Your task to perform on an android device: turn off data saver in the chrome app Image 0: 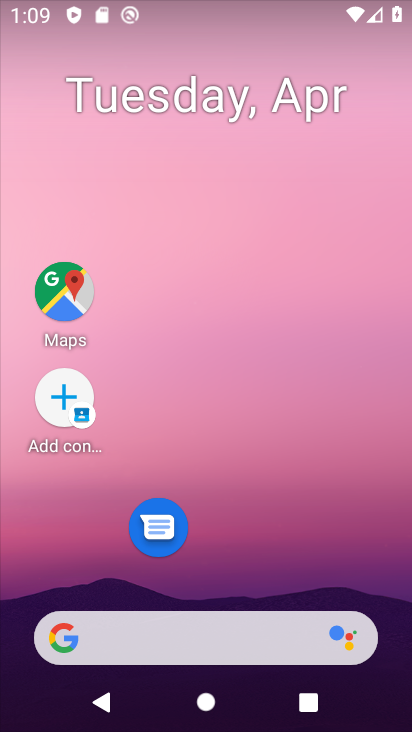
Step 0: drag from (224, 579) to (242, 56)
Your task to perform on an android device: turn off data saver in the chrome app Image 1: 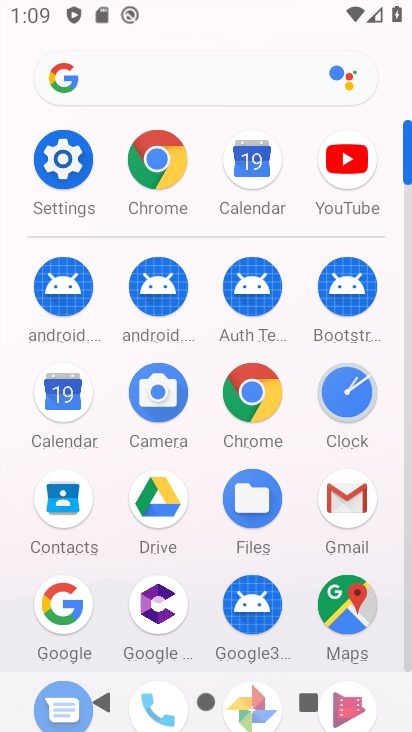
Step 1: click (157, 156)
Your task to perform on an android device: turn off data saver in the chrome app Image 2: 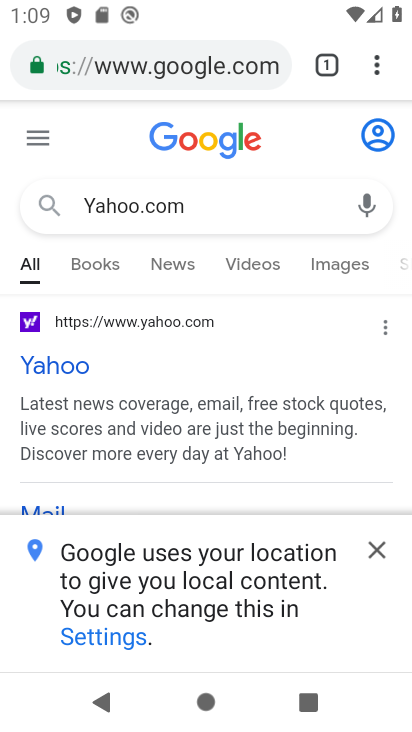
Step 2: click (379, 62)
Your task to perform on an android device: turn off data saver in the chrome app Image 3: 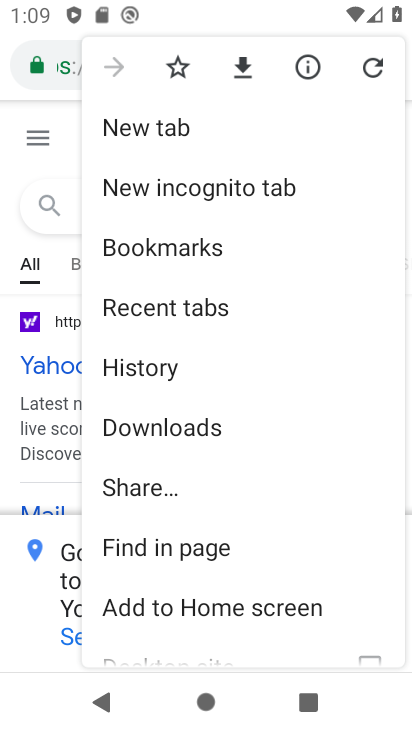
Step 3: drag from (263, 308) to (313, 172)
Your task to perform on an android device: turn off data saver in the chrome app Image 4: 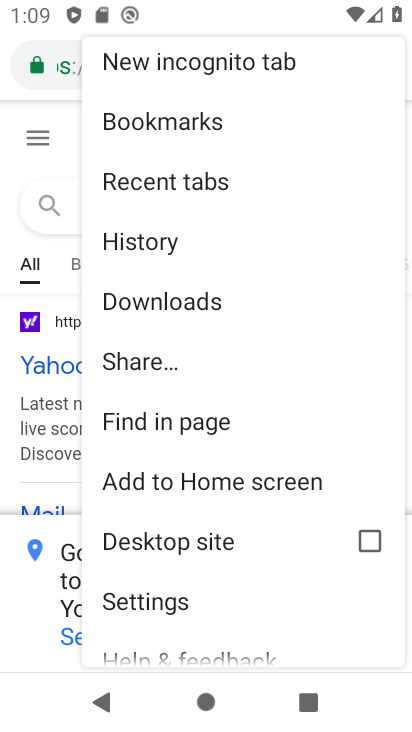
Step 4: click (146, 610)
Your task to perform on an android device: turn off data saver in the chrome app Image 5: 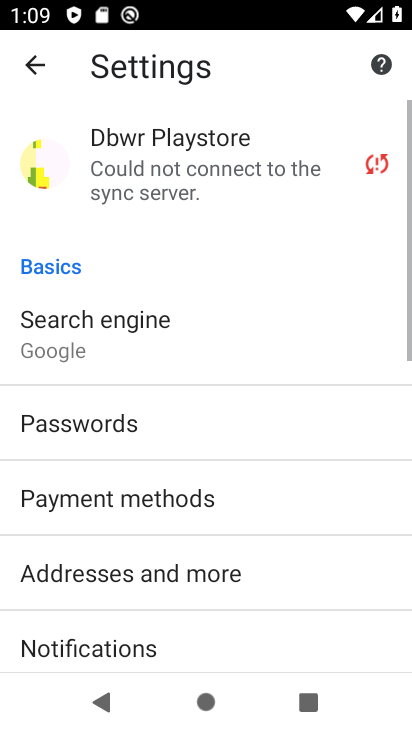
Step 5: drag from (227, 431) to (238, 294)
Your task to perform on an android device: turn off data saver in the chrome app Image 6: 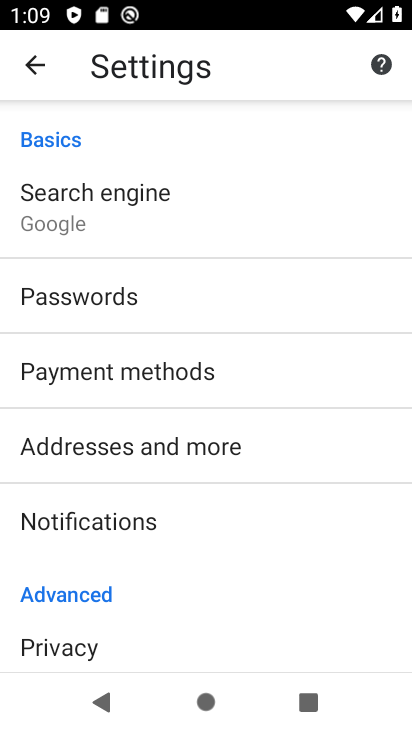
Step 6: drag from (186, 501) to (221, 358)
Your task to perform on an android device: turn off data saver in the chrome app Image 7: 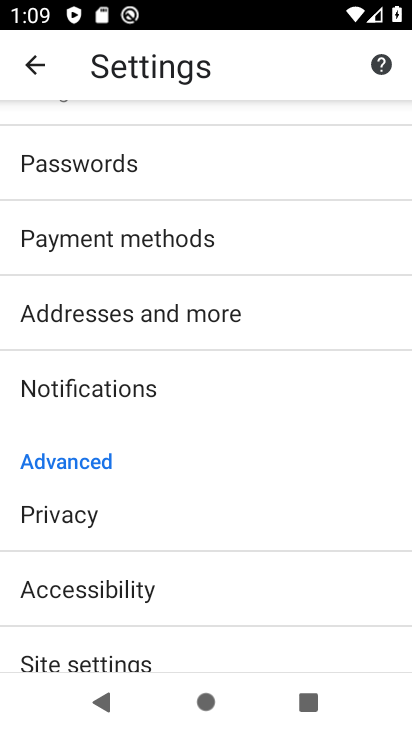
Step 7: drag from (167, 496) to (177, 367)
Your task to perform on an android device: turn off data saver in the chrome app Image 8: 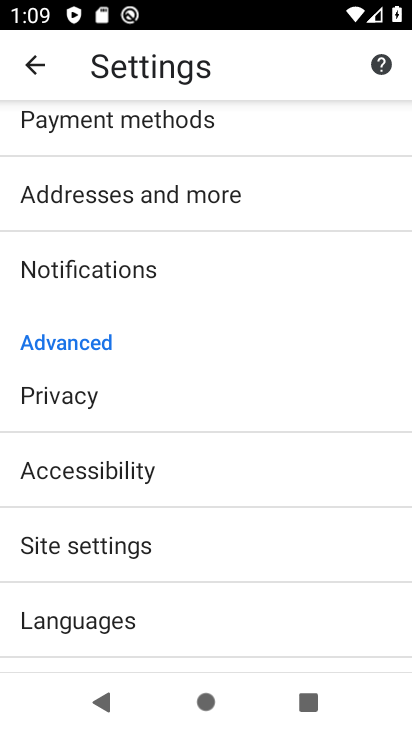
Step 8: drag from (167, 493) to (183, 397)
Your task to perform on an android device: turn off data saver in the chrome app Image 9: 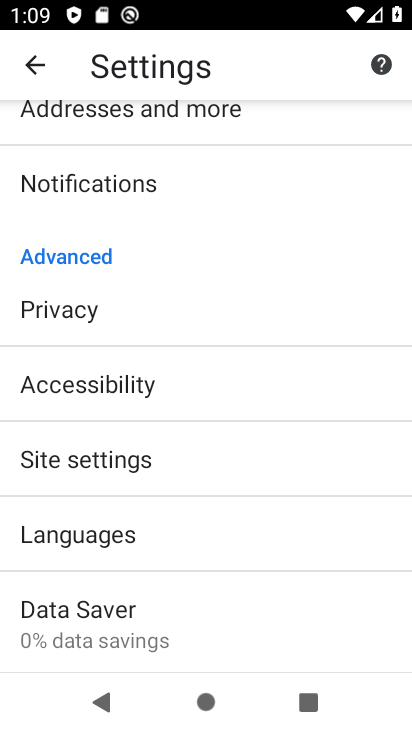
Step 9: drag from (168, 524) to (197, 435)
Your task to perform on an android device: turn off data saver in the chrome app Image 10: 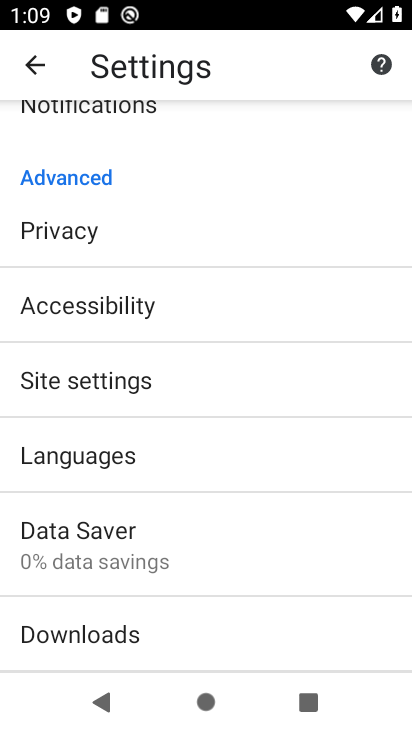
Step 10: click (133, 547)
Your task to perform on an android device: turn off data saver in the chrome app Image 11: 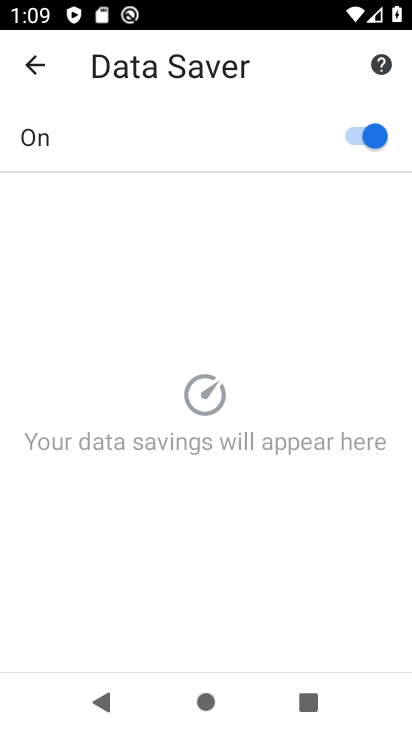
Step 11: click (375, 139)
Your task to perform on an android device: turn off data saver in the chrome app Image 12: 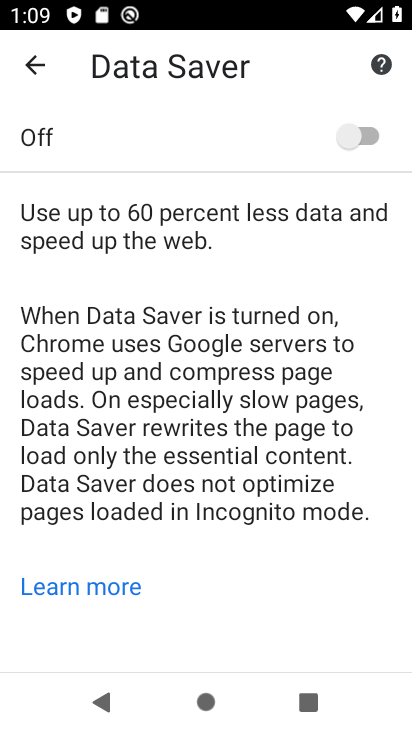
Step 12: task complete